Your task to perform on an android device: snooze an email in the gmail app Image 0: 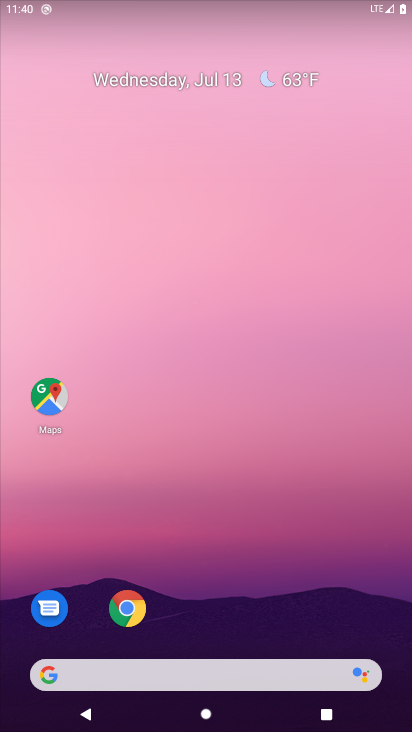
Step 0: press home button
Your task to perform on an android device: snooze an email in the gmail app Image 1: 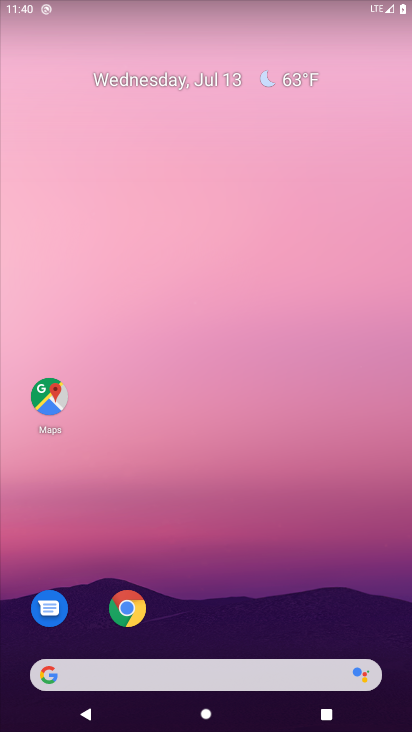
Step 1: drag from (302, 601) to (169, 44)
Your task to perform on an android device: snooze an email in the gmail app Image 2: 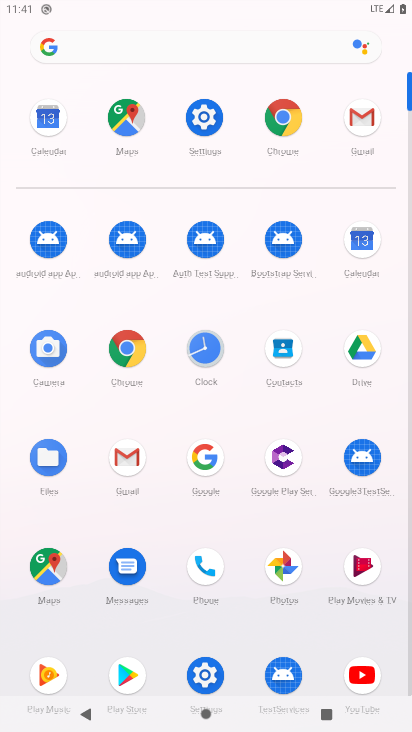
Step 2: click (140, 462)
Your task to perform on an android device: snooze an email in the gmail app Image 3: 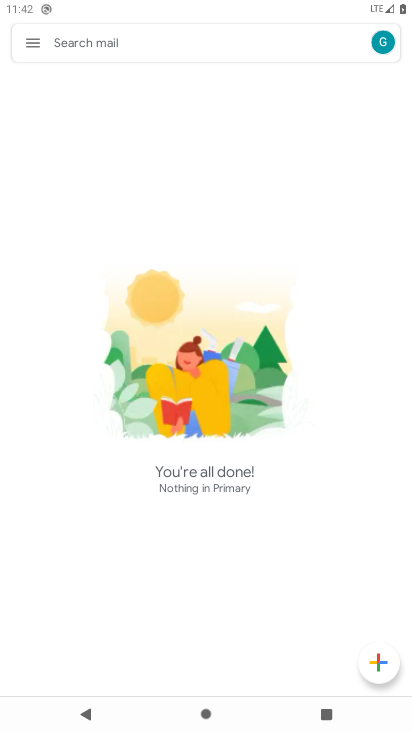
Step 3: click (30, 38)
Your task to perform on an android device: snooze an email in the gmail app Image 4: 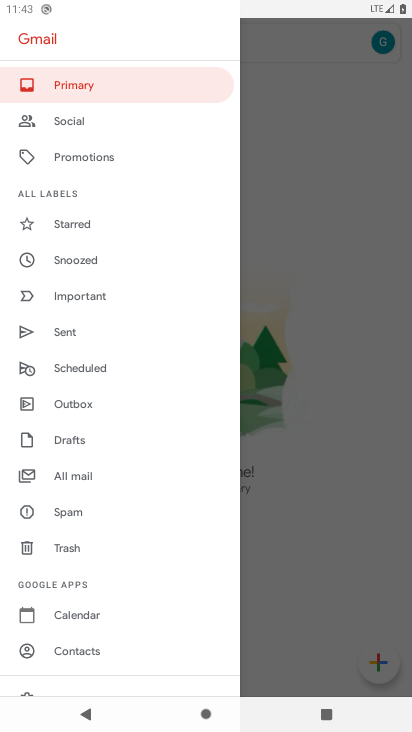
Step 4: click (84, 225)
Your task to perform on an android device: snooze an email in the gmail app Image 5: 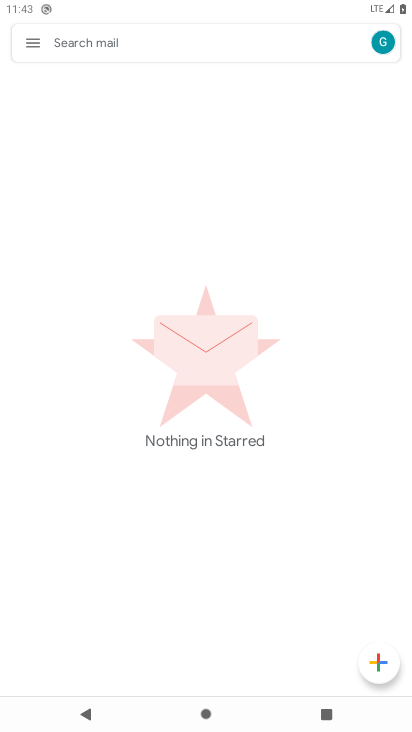
Step 5: click (21, 31)
Your task to perform on an android device: snooze an email in the gmail app Image 6: 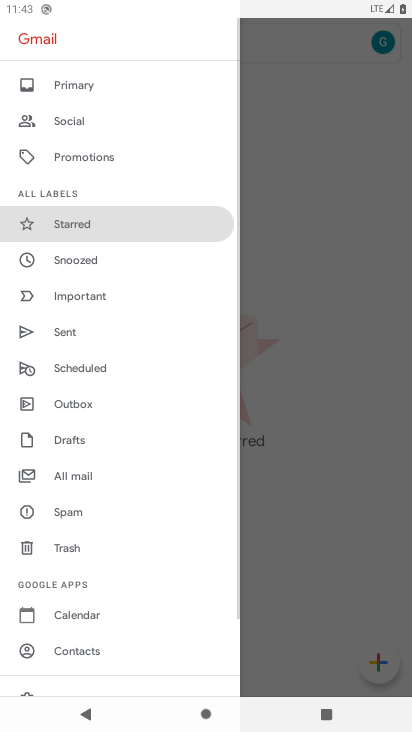
Step 6: click (63, 260)
Your task to perform on an android device: snooze an email in the gmail app Image 7: 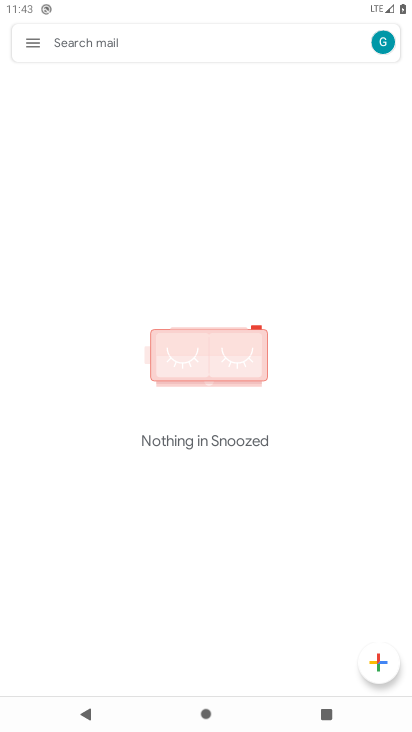
Step 7: task complete